Your task to perform on an android device: Open network settings Image 0: 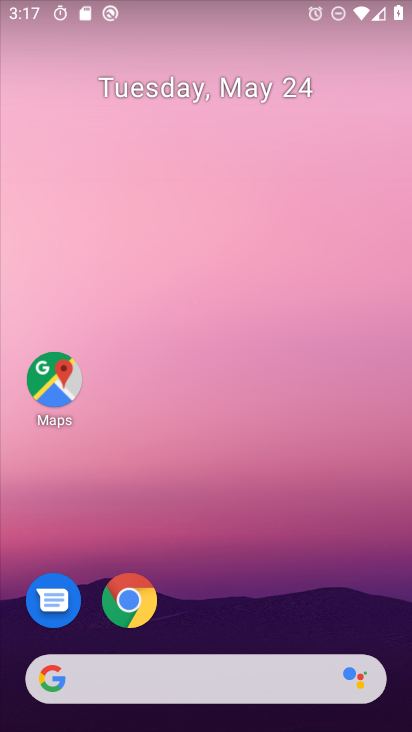
Step 0: drag from (286, 577) to (286, 208)
Your task to perform on an android device: Open network settings Image 1: 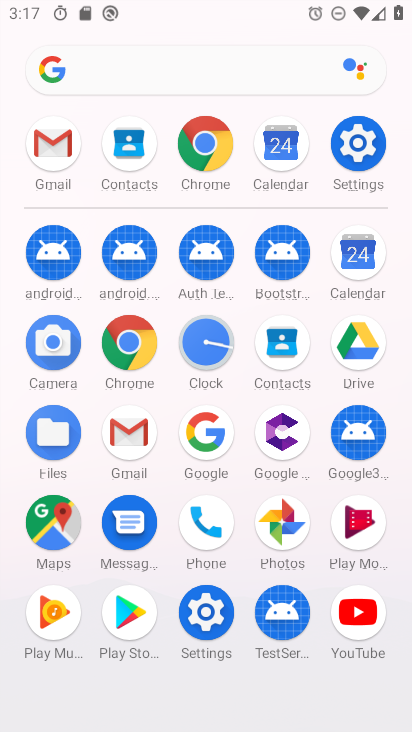
Step 1: click (360, 151)
Your task to perform on an android device: Open network settings Image 2: 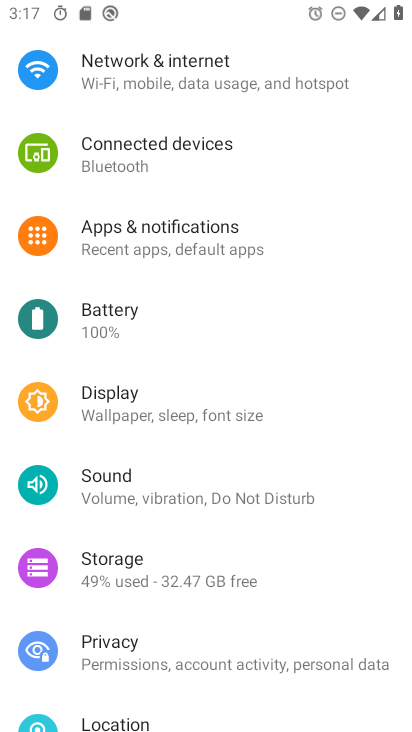
Step 2: click (133, 75)
Your task to perform on an android device: Open network settings Image 3: 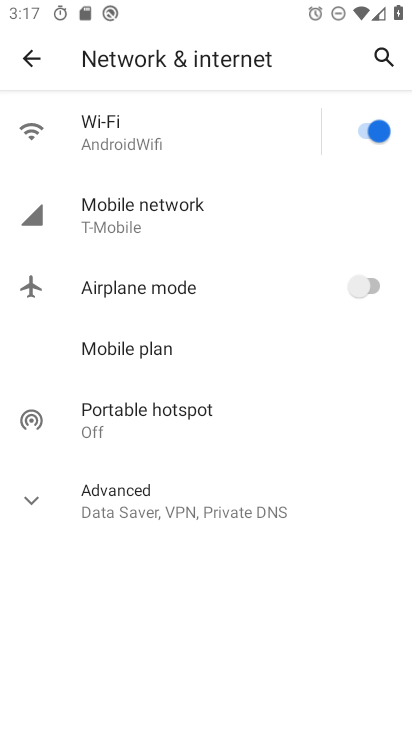
Step 3: task complete